Your task to perform on an android device: set default search engine in the chrome app Image 0: 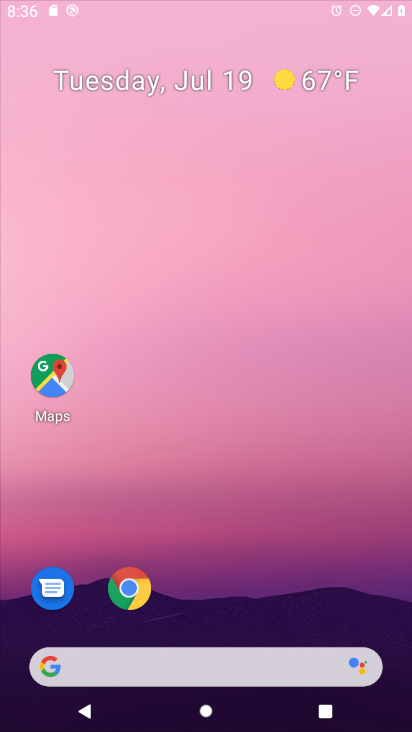
Step 0: drag from (359, 202) to (377, 141)
Your task to perform on an android device: set default search engine in the chrome app Image 1: 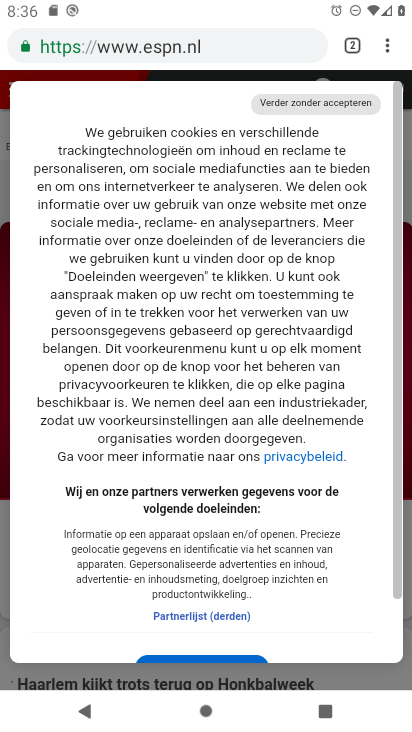
Step 1: click (388, 55)
Your task to perform on an android device: set default search engine in the chrome app Image 2: 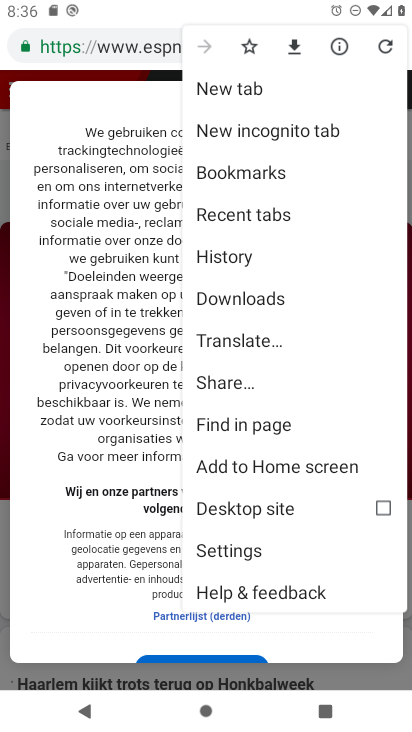
Step 2: click (292, 542)
Your task to perform on an android device: set default search engine in the chrome app Image 3: 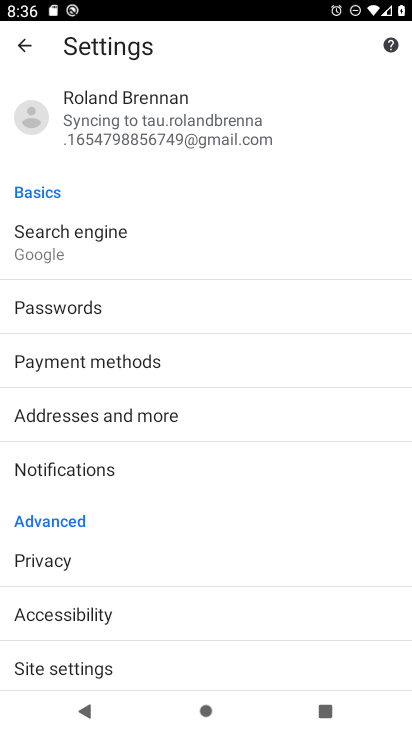
Step 3: drag from (303, 624) to (312, 459)
Your task to perform on an android device: set default search engine in the chrome app Image 4: 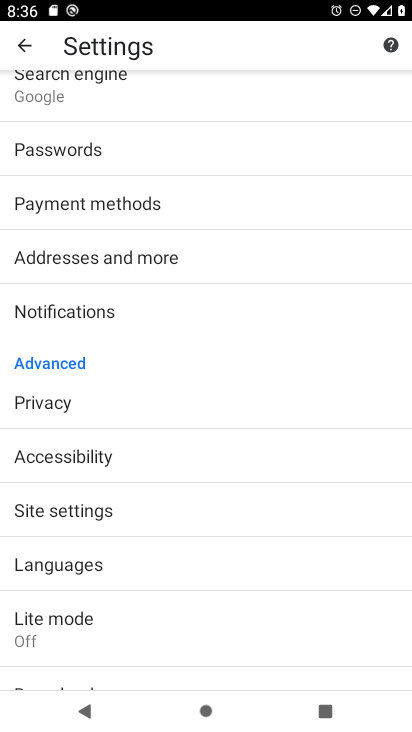
Step 4: drag from (302, 615) to (311, 379)
Your task to perform on an android device: set default search engine in the chrome app Image 5: 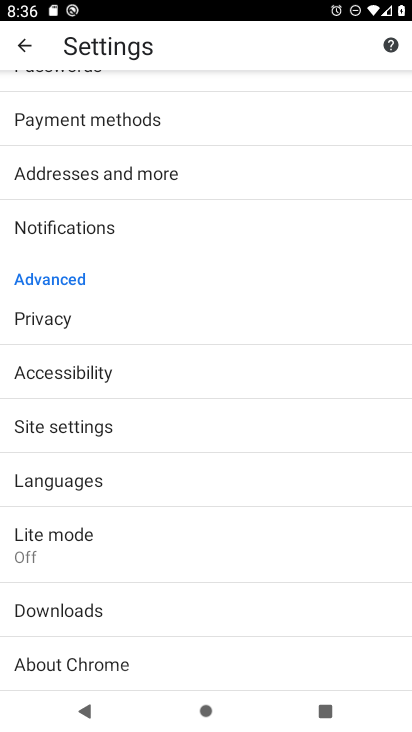
Step 5: drag from (311, 223) to (313, 335)
Your task to perform on an android device: set default search engine in the chrome app Image 6: 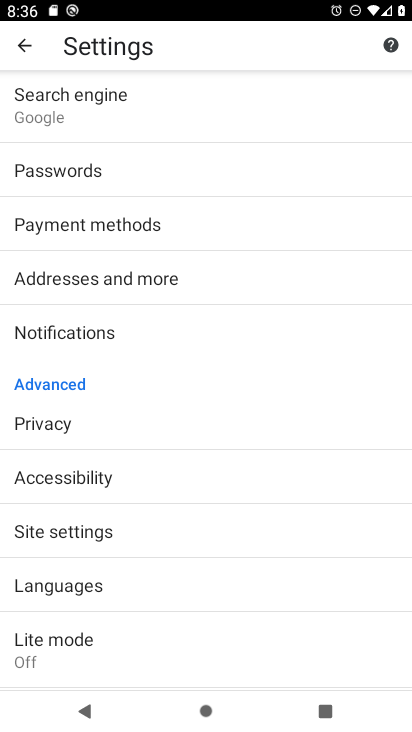
Step 6: drag from (317, 226) to (320, 334)
Your task to perform on an android device: set default search engine in the chrome app Image 7: 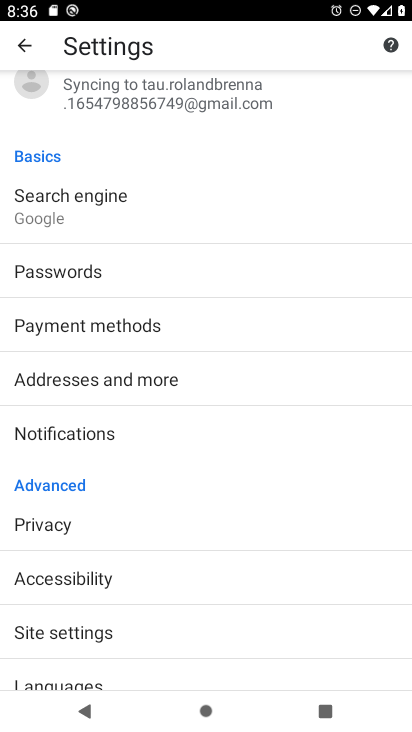
Step 7: drag from (310, 200) to (308, 332)
Your task to perform on an android device: set default search engine in the chrome app Image 8: 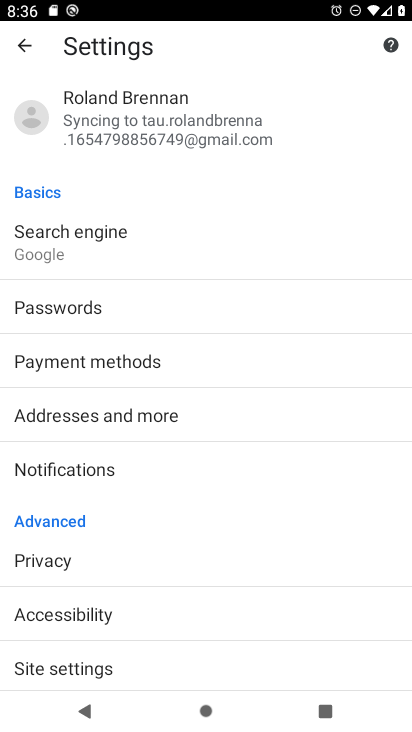
Step 8: click (200, 256)
Your task to perform on an android device: set default search engine in the chrome app Image 9: 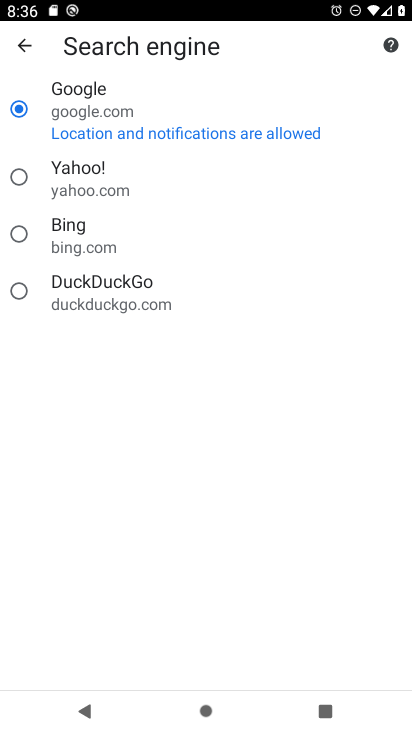
Step 9: click (89, 256)
Your task to perform on an android device: set default search engine in the chrome app Image 10: 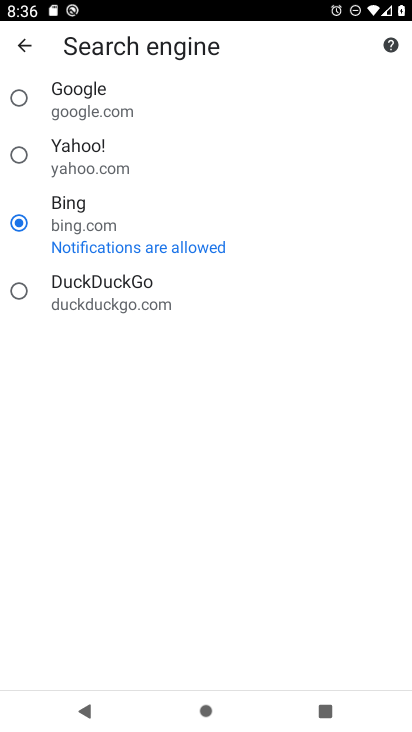
Step 10: task complete